Your task to perform on an android device: check android version Image 0: 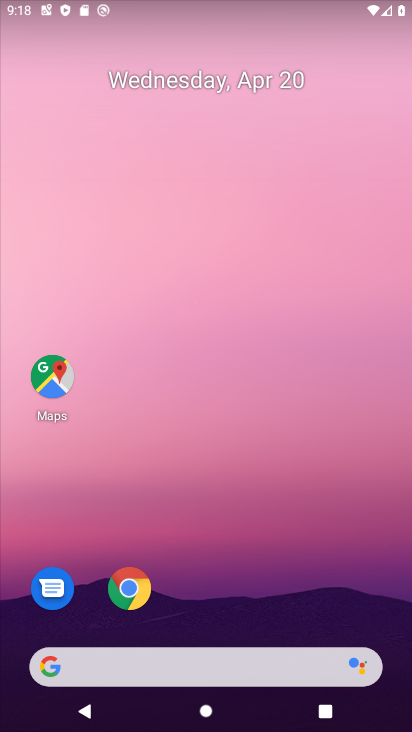
Step 0: drag from (200, 611) to (145, 185)
Your task to perform on an android device: check android version Image 1: 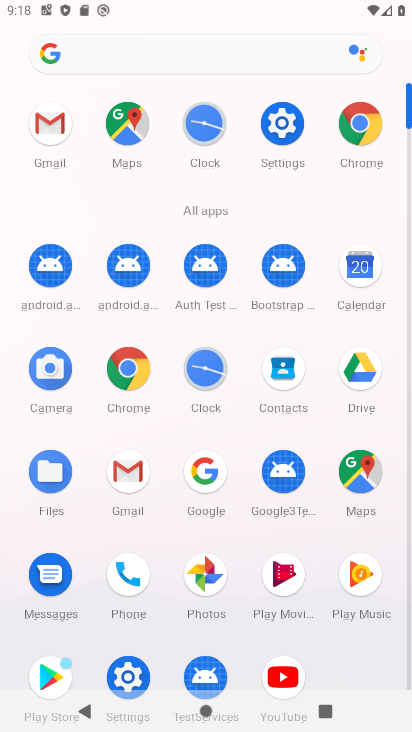
Step 1: click (285, 130)
Your task to perform on an android device: check android version Image 2: 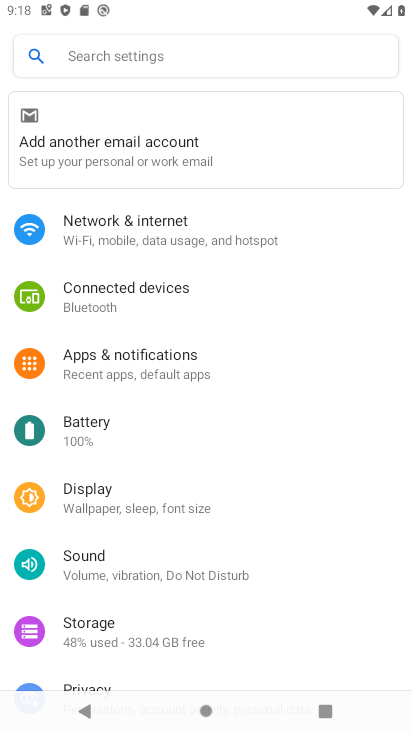
Step 2: drag from (301, 634) to (299, 227)
Your task to perform on an android device: check android version Image 3: 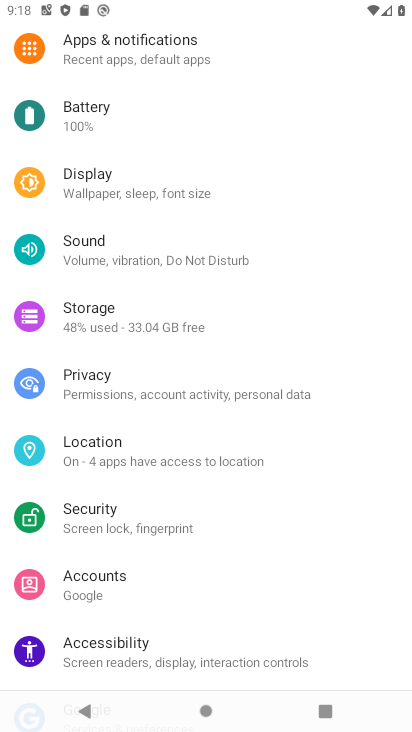
Step 3: drag from (304, 618) to (302, 301)
Your task to perform on an android device: check android version Image 4: 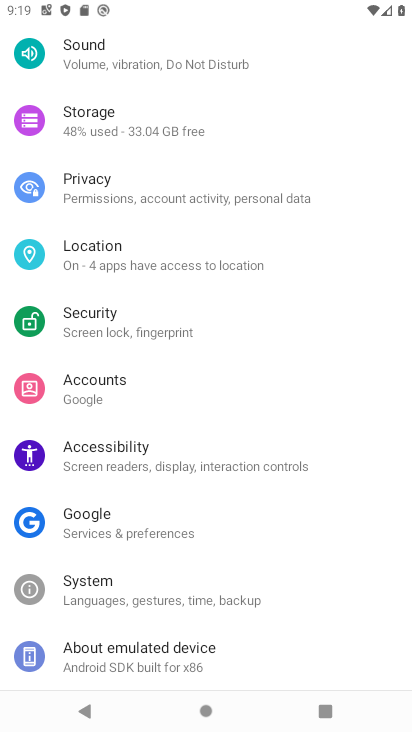
Step 4: click (203, 659)
Your task to perform on an android device: check android version Image 5: 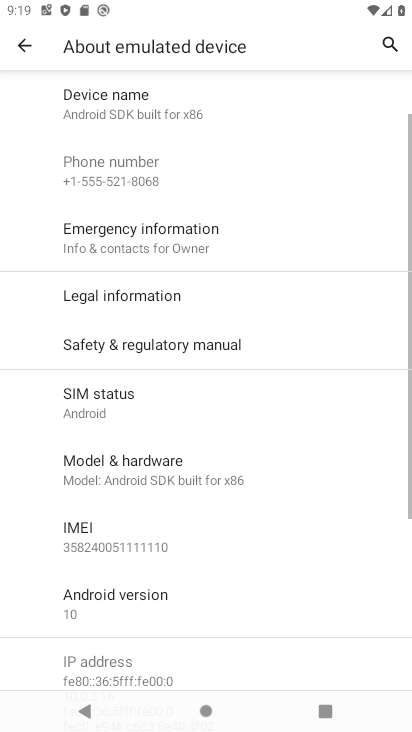
Step 5: click (150, 601)
Your task to perform on an android device: check android version Image 6: 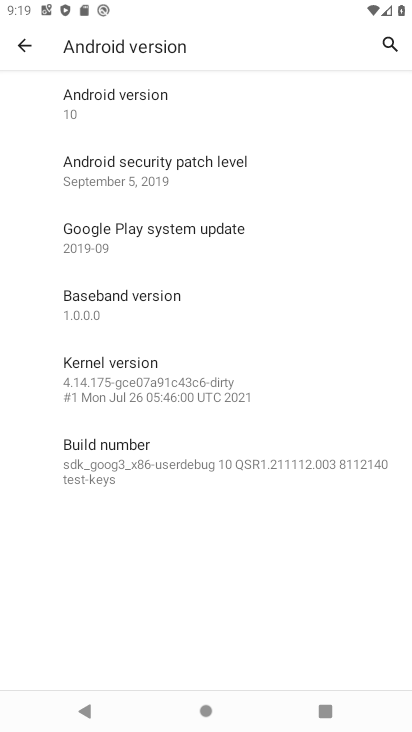
Step 6: task complete